Your task to perform on an android device: delete location history Image 0: 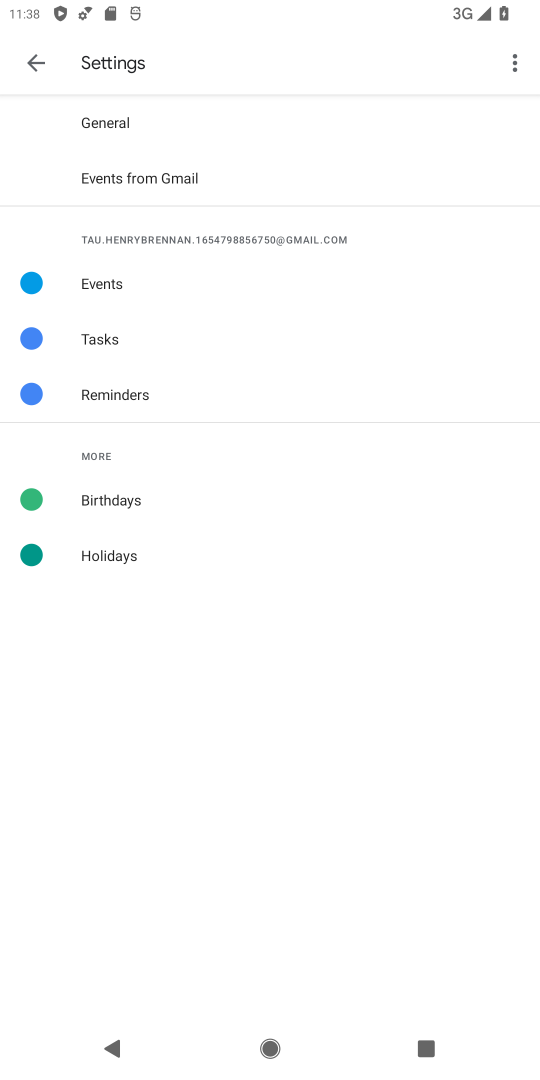
Step 0: drag from (283, 832) to (211, 240)
Your task to perform on an android device: delete location history Image 1: 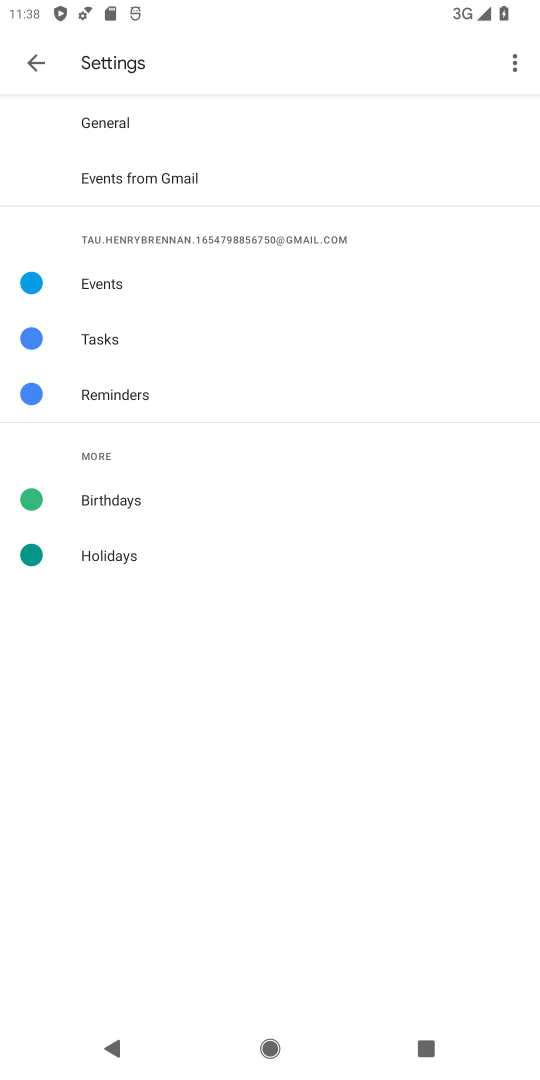
Step 1: press home button
Your task to perform on an android device: delete location history Image 2: 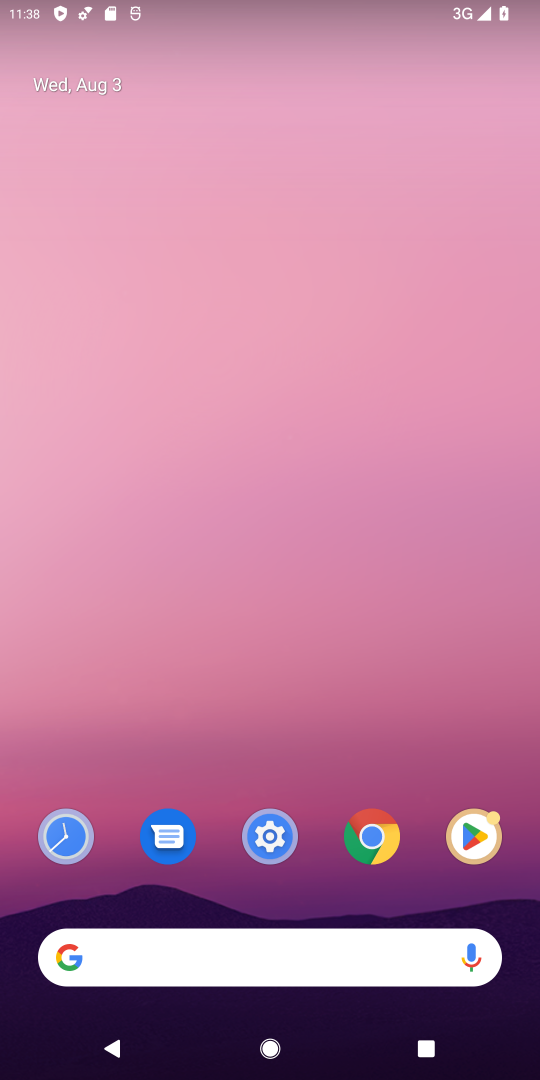
Step 2: drag from (227, 856) to (273, 18)
Your task to perform on an android device: delete location history Image 3: 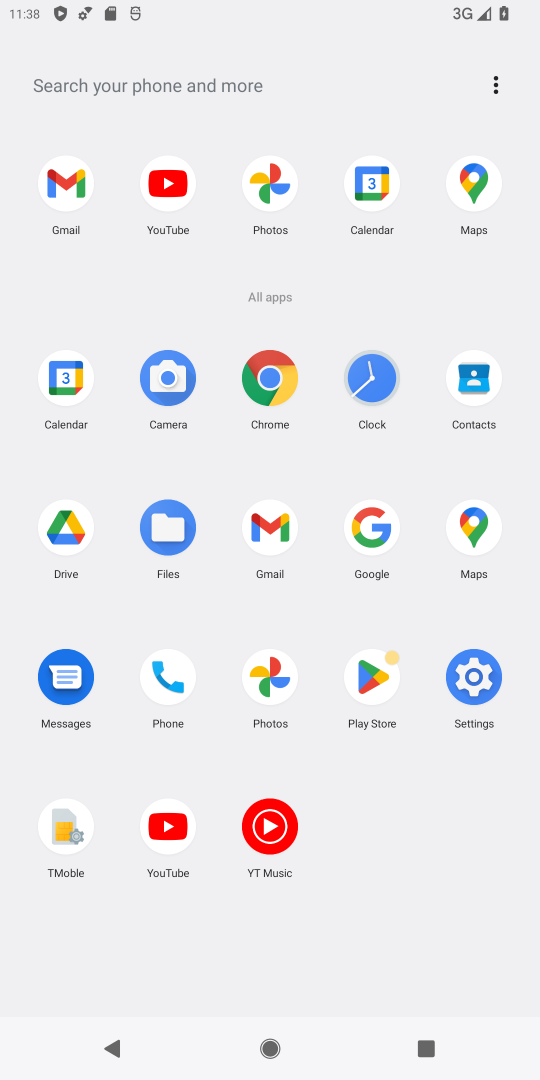
Step 3: click (475, 684)
Your task to perform on an android device: delete location history Image 4: 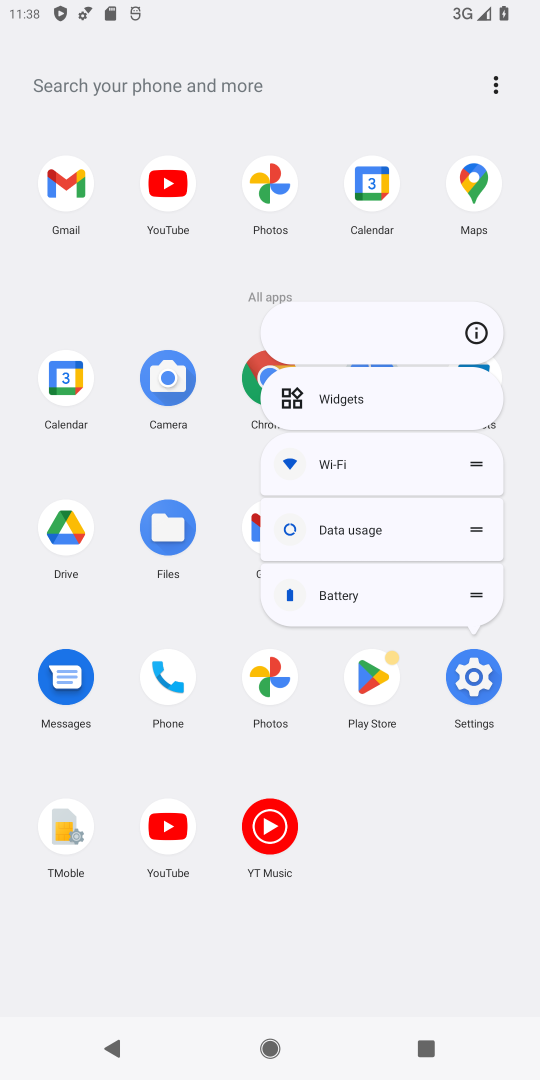
Step 4: click (475, 319)
Your task to perform on an android device: delete location history Image 5: 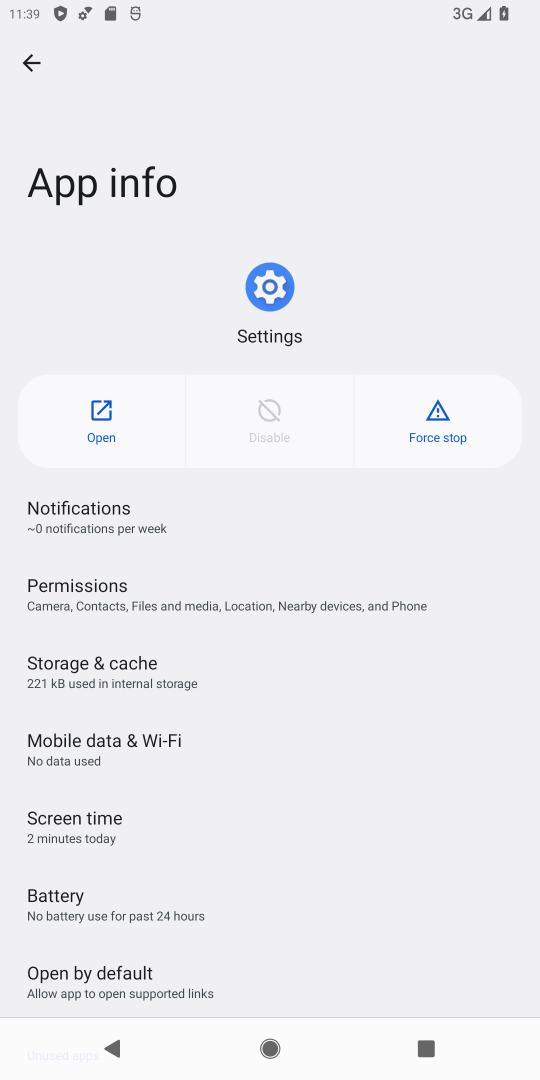
Step 5: click (84, 434)
Your task to perform on an android device: delete location history Image 6: 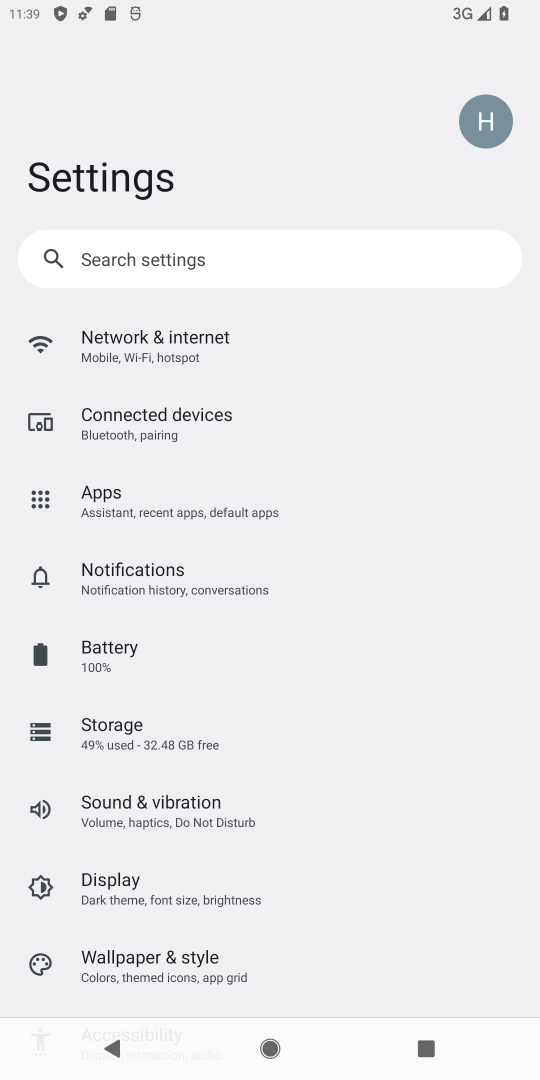
Step 6: drag from (323, 955) to (375, 679)
Your task to perform on an android device: delete location history Image 7: 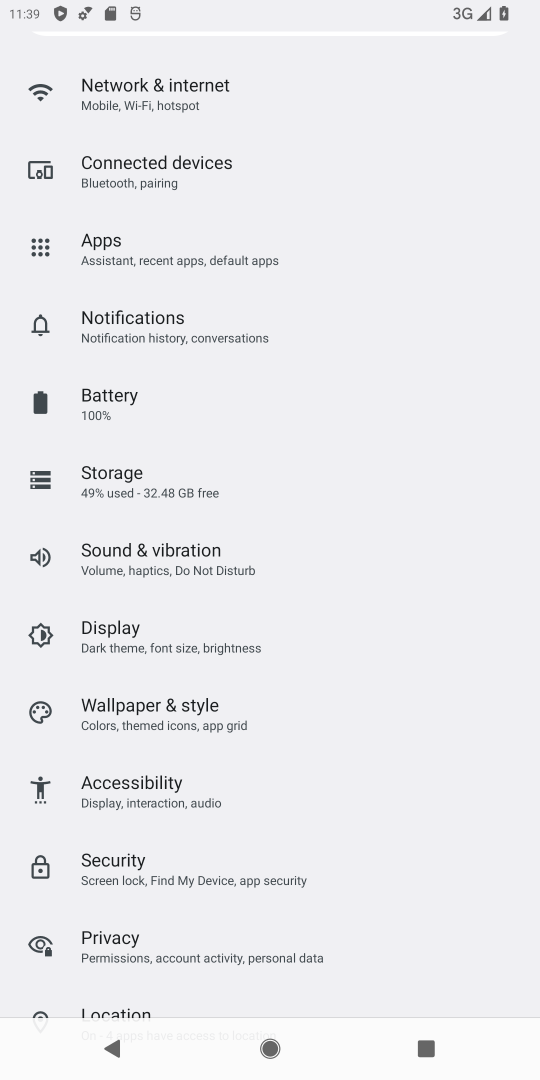
Step 7: drag from (134, 855) to (228, 427)
Your task to perform on an android device: delete location history Image 8: 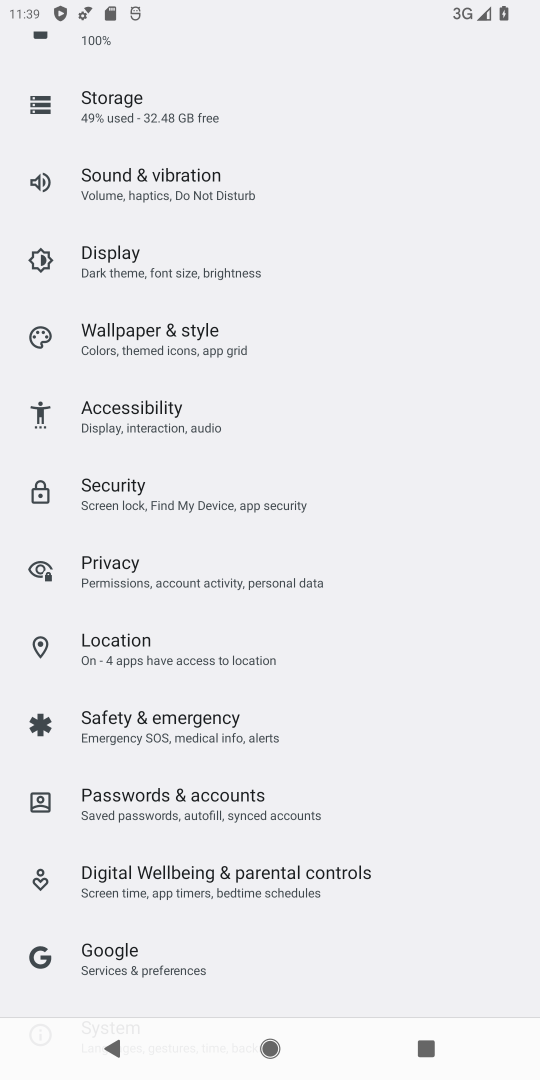
Step 8: click (191, 649)
Your task to perform on an android device: delete location history Image 9: 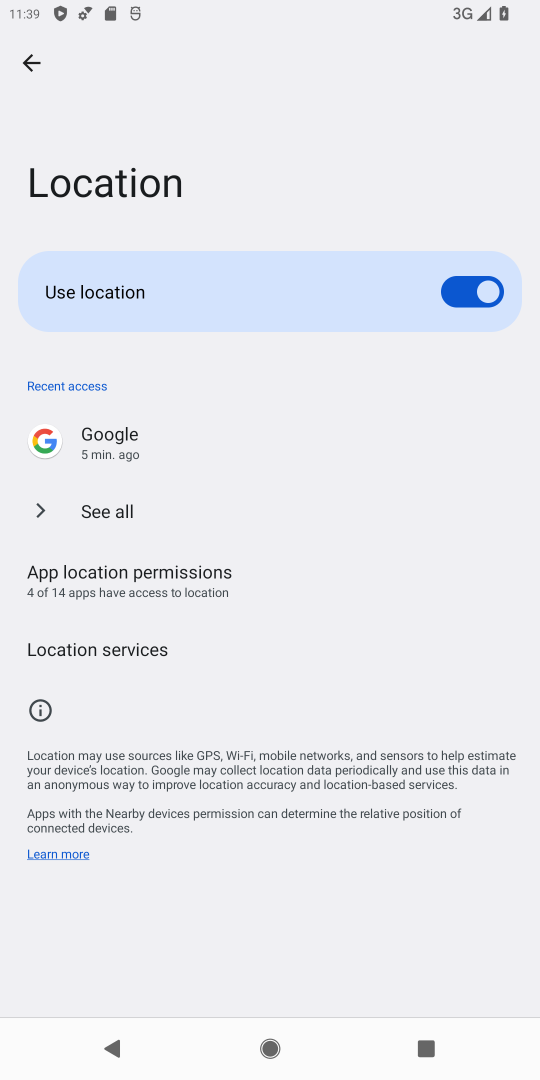
Step 9: click (107, 526)
Your task to perform on an android device: delete location history Image 10: 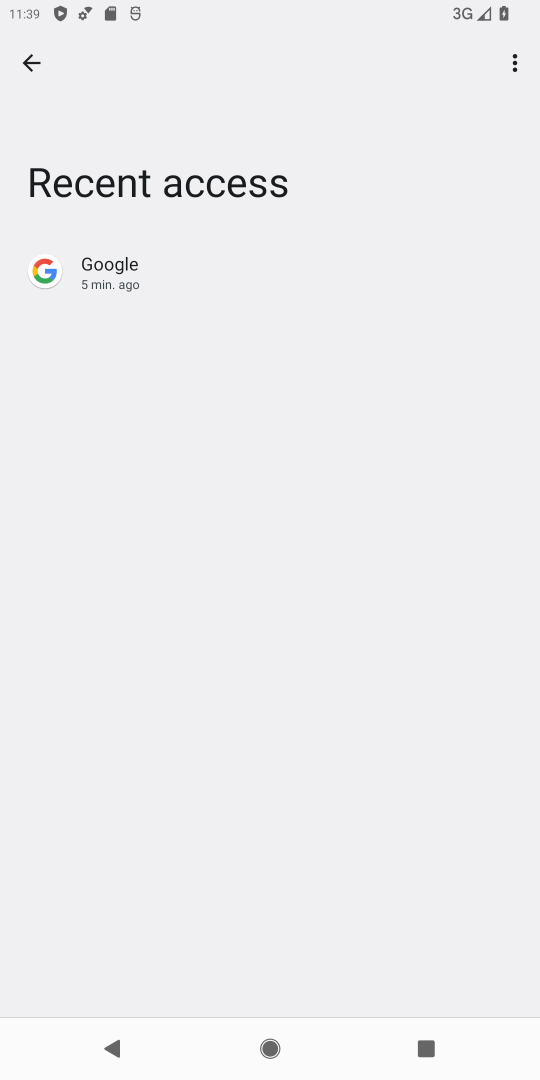
Step 10: click (34, 71)
Your task to perform on an android device: delete location history Image 11: 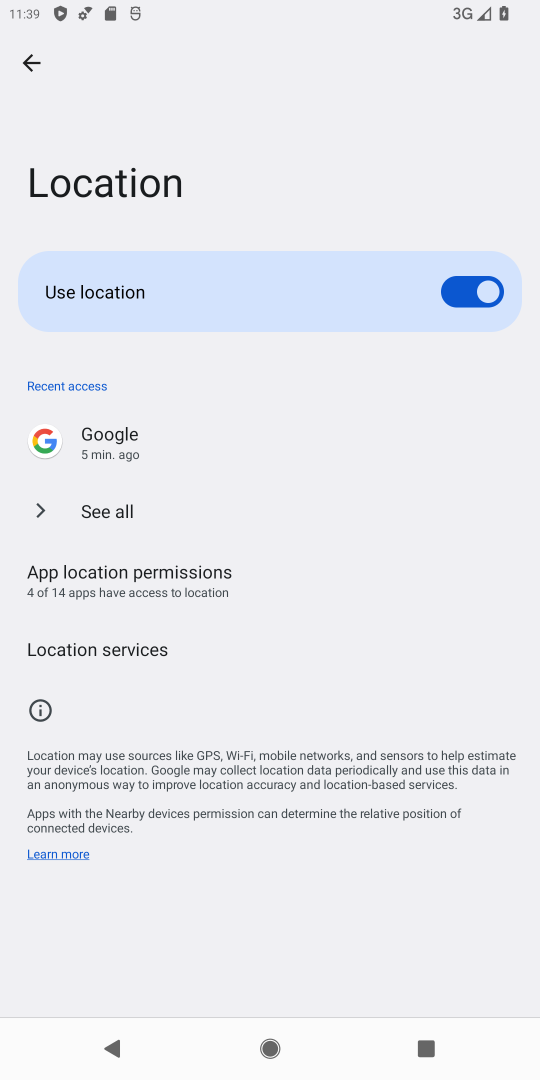
Step 11: click (107, 590)
Your task to perform on an android device: delete location history Image 12: 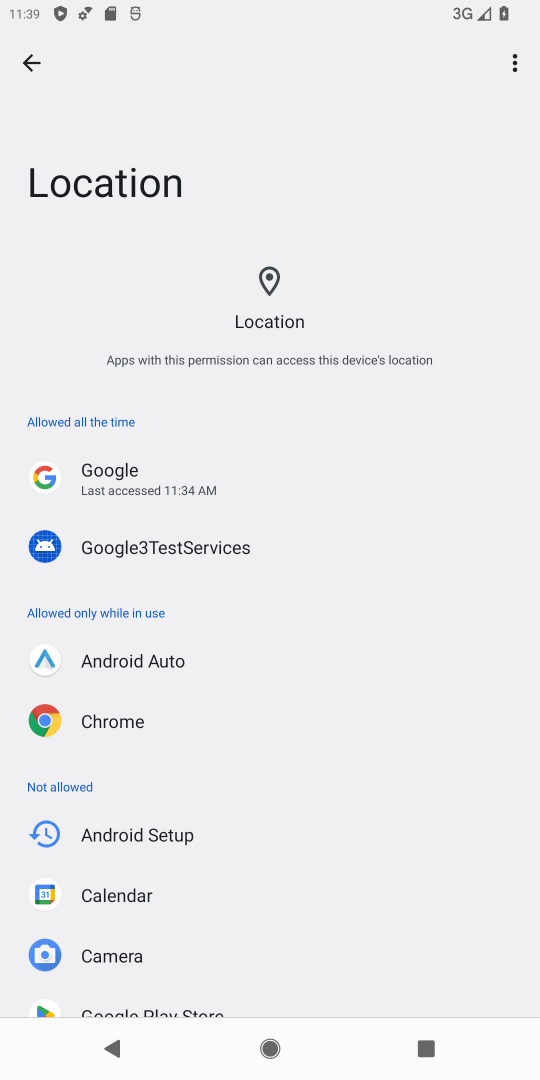
Step 12: click (19, 62)
Your task to perform on an android device: delete location history Image 13: 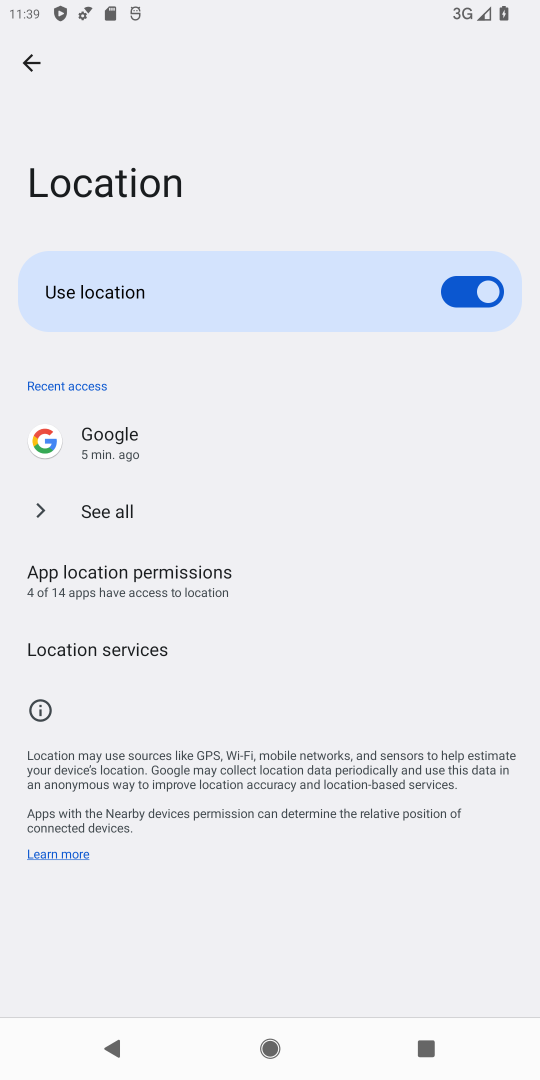
Step 13: drag from (234, 870) to (322, 392)
Your task to perform on an android device: delete location history Image 14: 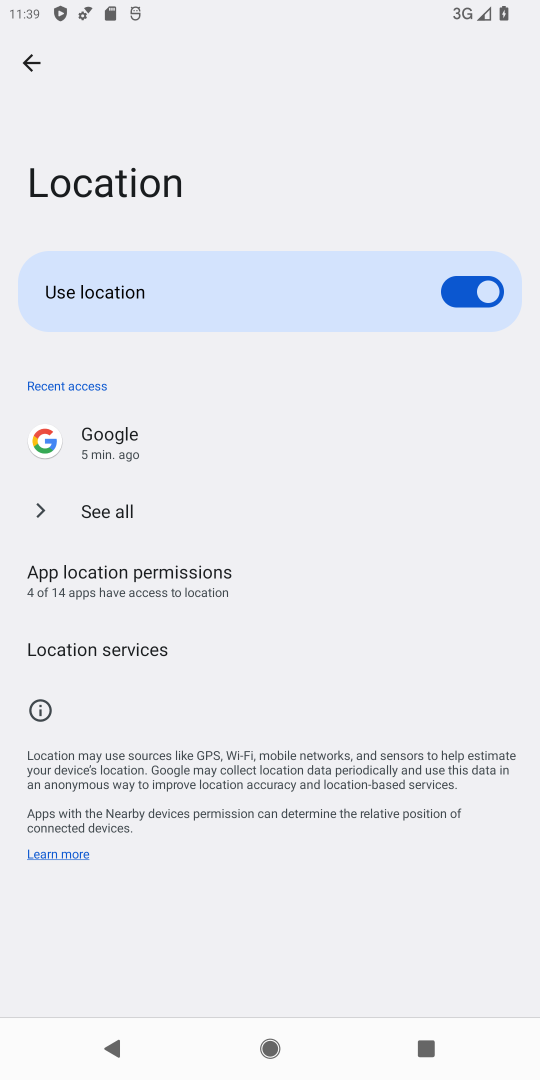
Step 14: drag from (192, 827) to (195, 529)
Your task to perform on an android device: delete location history Image 15: 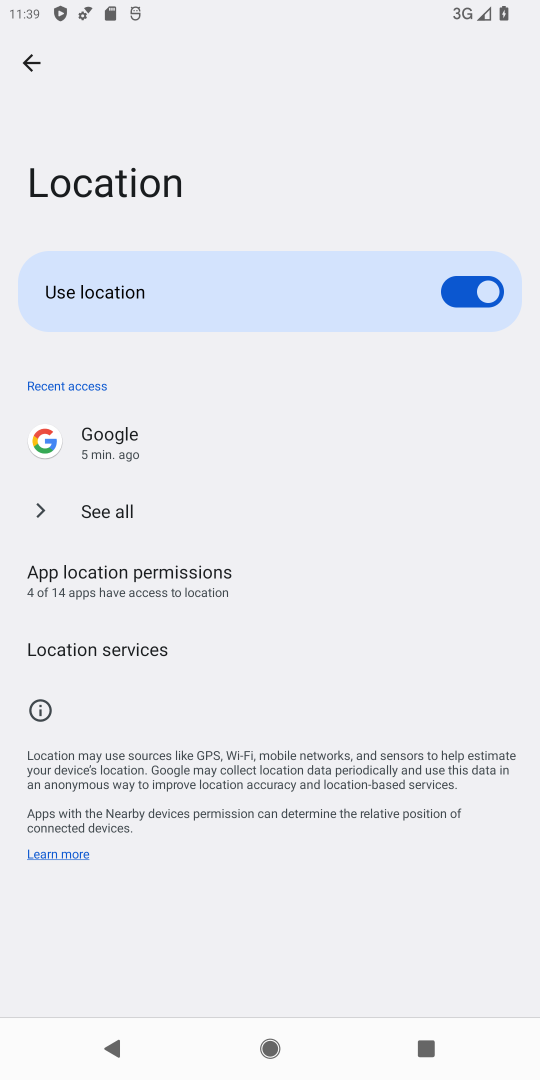
Step 15: drag from (256, 540) to (315, 952)
Your task to perform on an android device: delete location history Image 16: 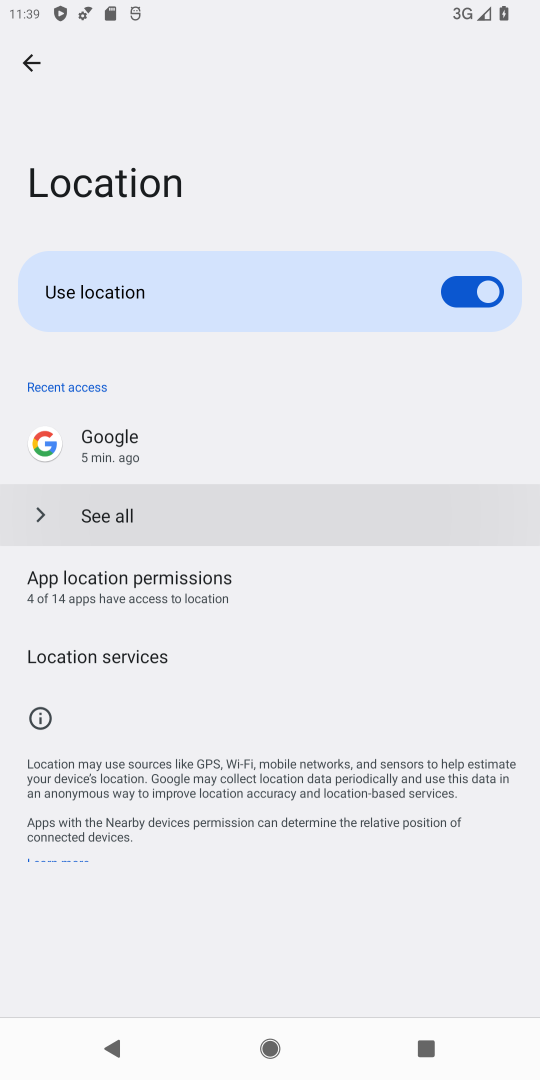
Step 16: drag from (275, 777) to (259, 553)
Your task to perform on an android device: delete location history Image 17: 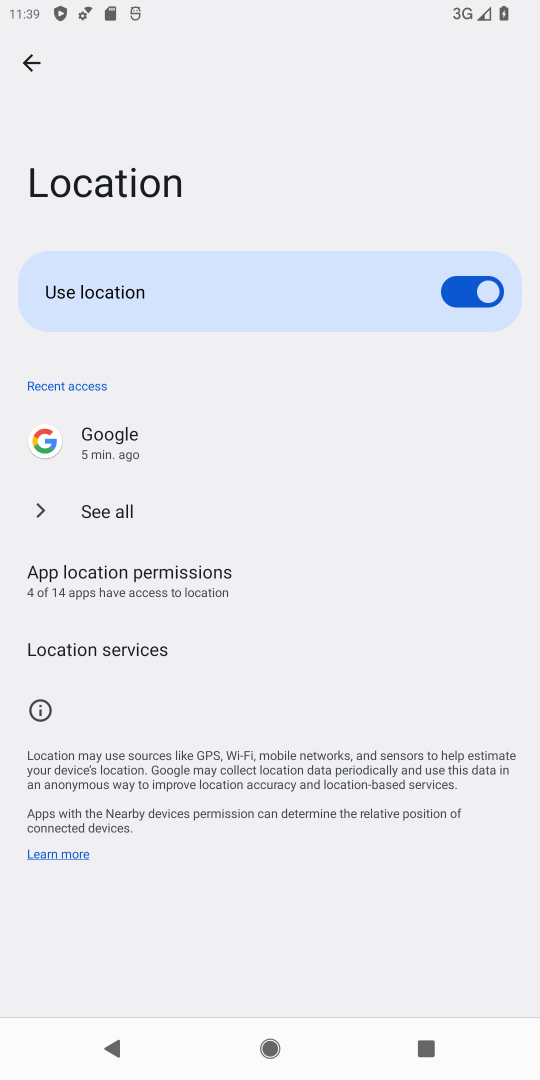
Step 17: click (68, 503)
Your task to perform on an android device: delete location history Image 18: 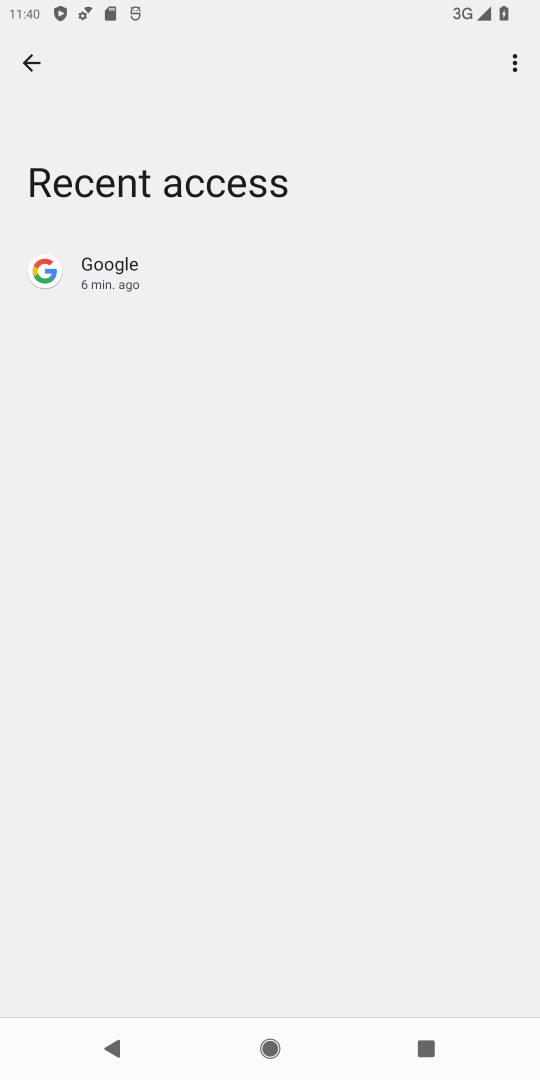
Step 18: click (20, 53)
Your task to perform on an android device: delete location history Image 19: 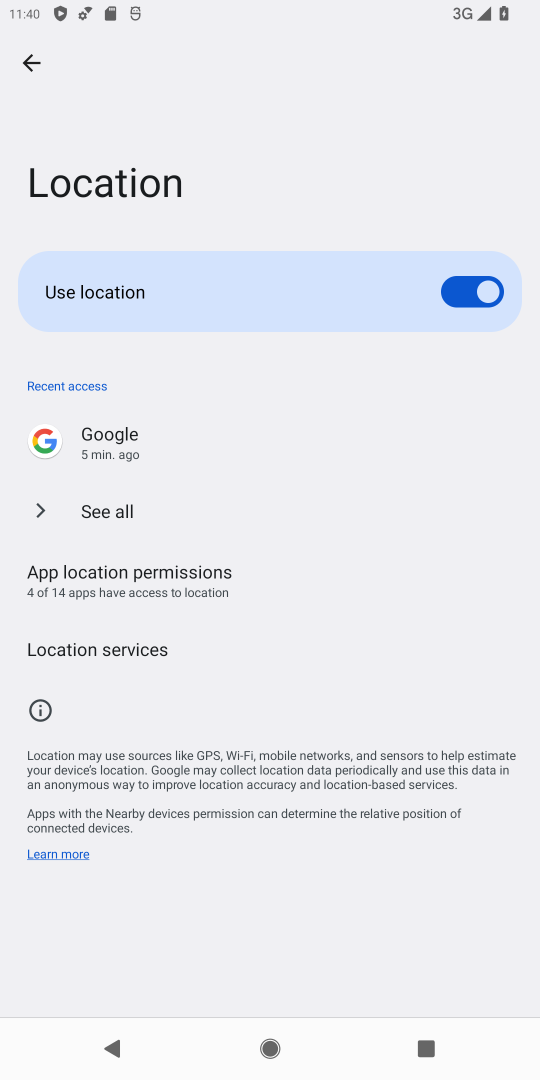
Step 19: drag from (279, 594) to (279, 221)
Your task to perform on an android device: delete location history Image 20: 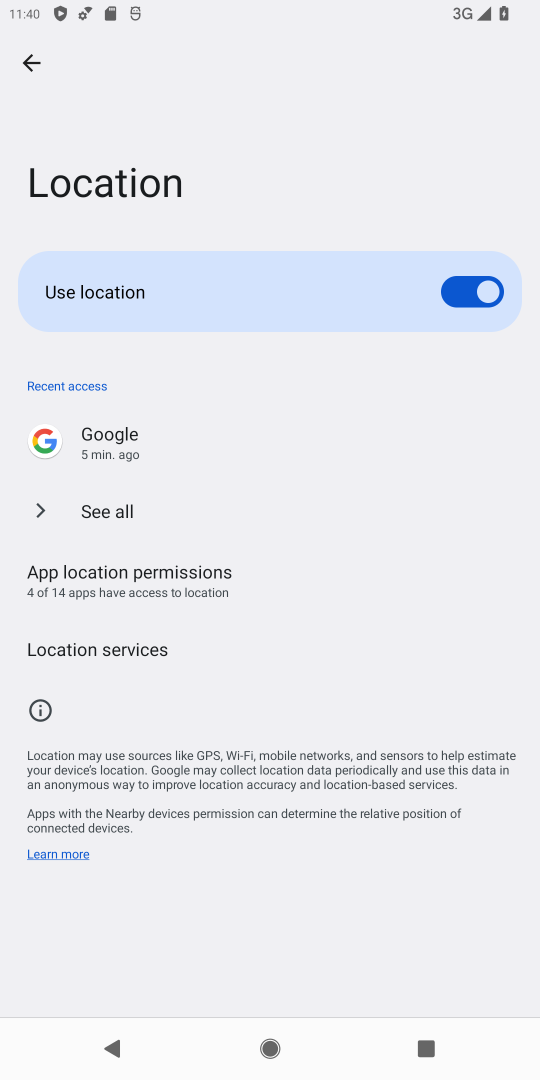
Step 20: drag from (205, 571) to (201, 171)
Your task to perform on an android device: delete location history Image 21: 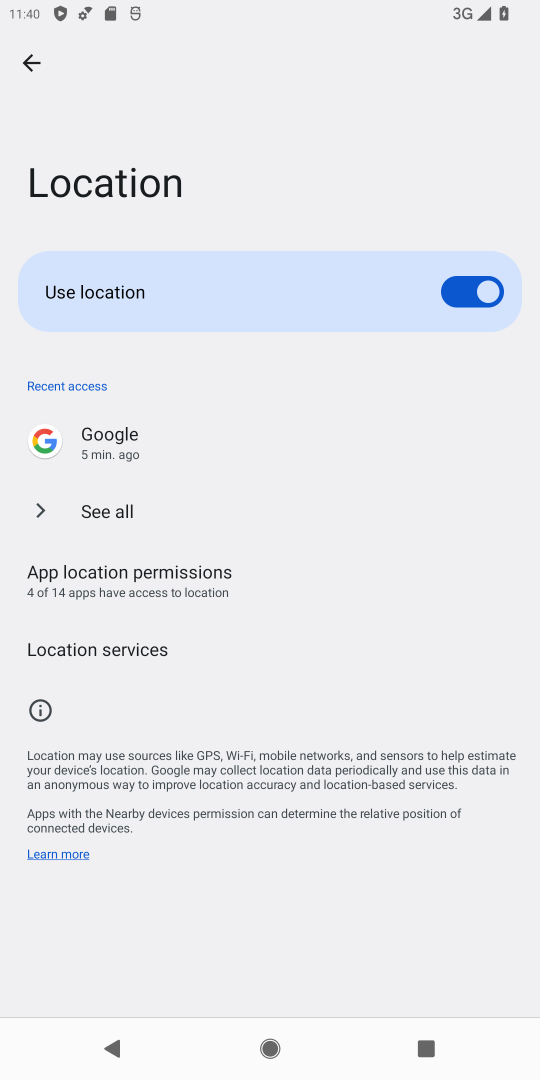
Step 21: drag from (269, 680) to (315, 243)
Your task to perform on an android device: delete location history Image 22: 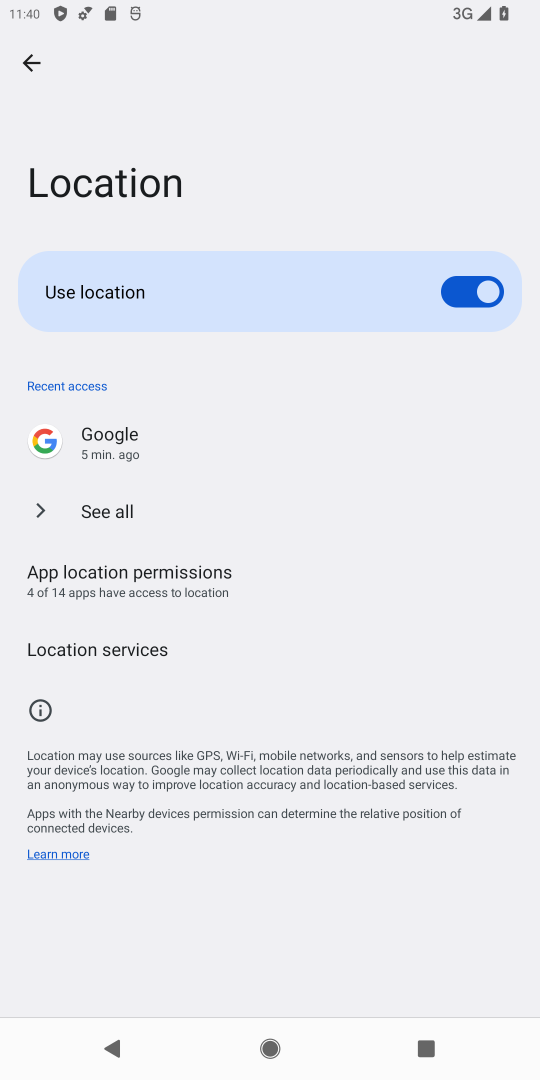
Step 22: drag from (259, 147) to (245, 655)
Your task to perform on an android device: delete location history Image 23: 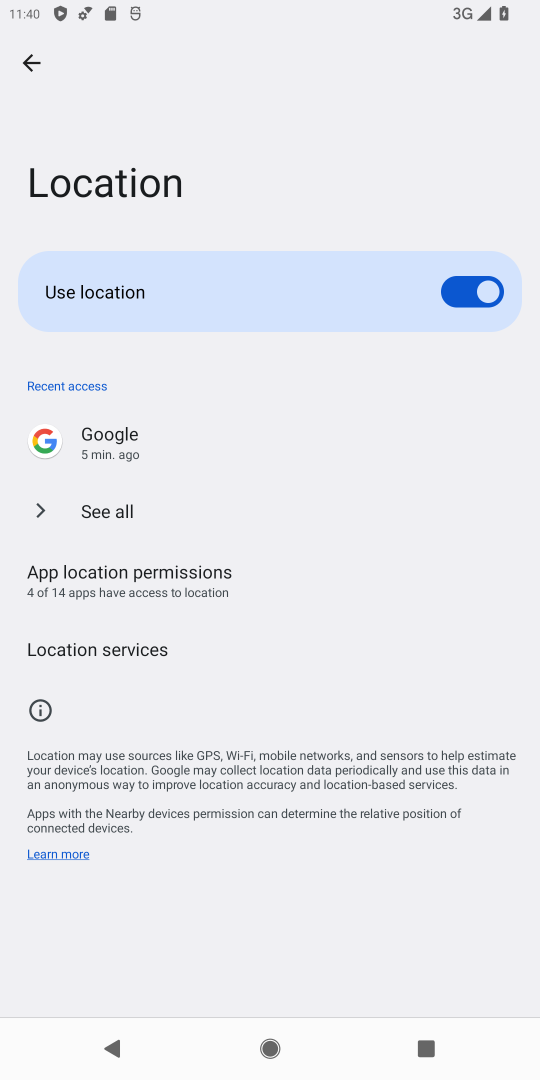
Step 23: drag from (225, 195) to (174, 564)
Your task to perform on an android device: delete location history Image 24: 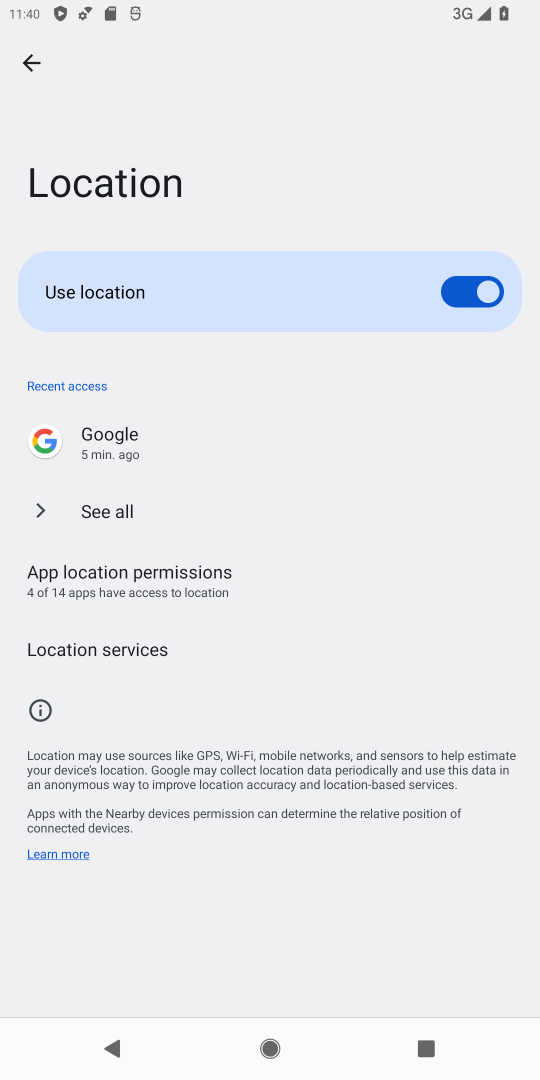
Step 24: drag from (311, 147) to (305, 778)
Your task to perform on an android device: delete location history Image 25: 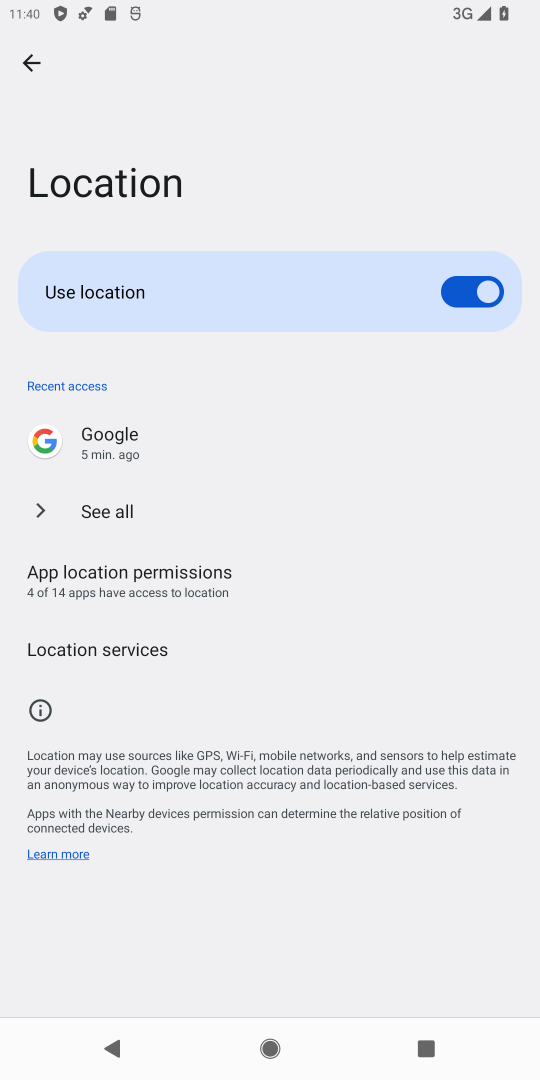
Step 25: drag from (245, 168) to (248, 915)
Your task to perform on an android device: delete location history Image 26: 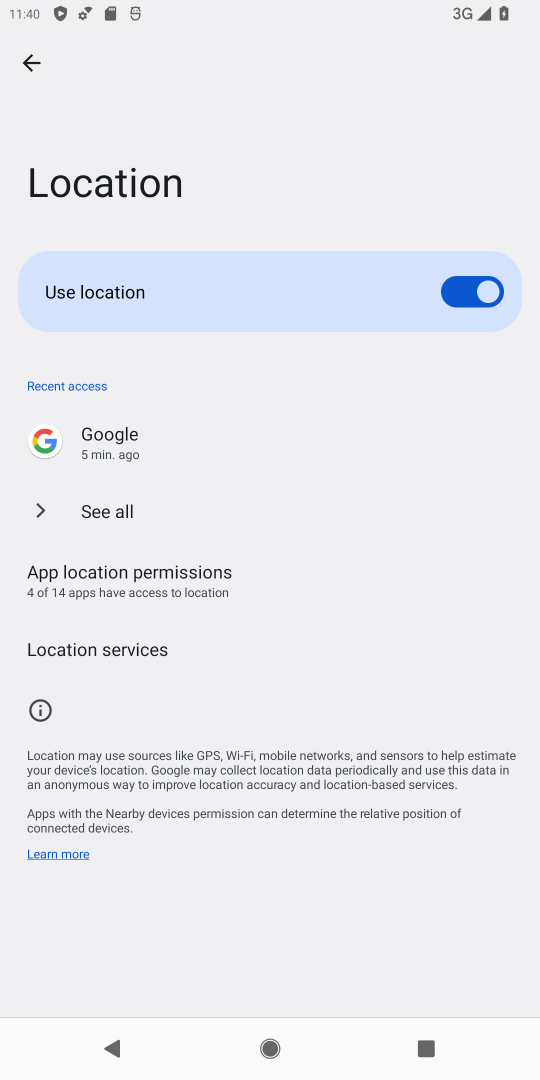
Step 26: drag from (273, 856) to (277, 647)
Your task to perform on an android device: delete location history Image 27: 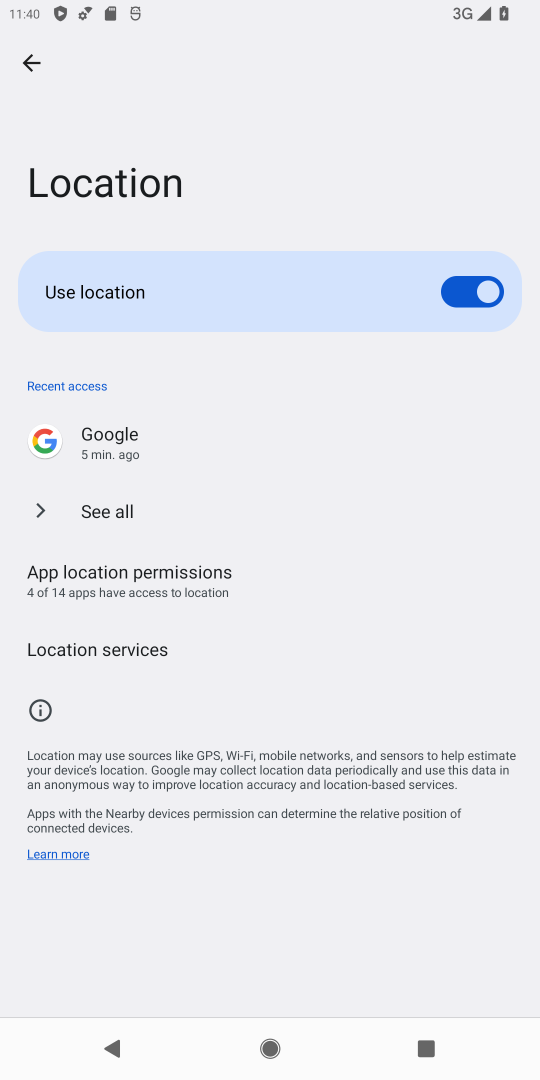
Step 27: click (176, 563)
Your task to perform on an android device: delete location history Image 28: 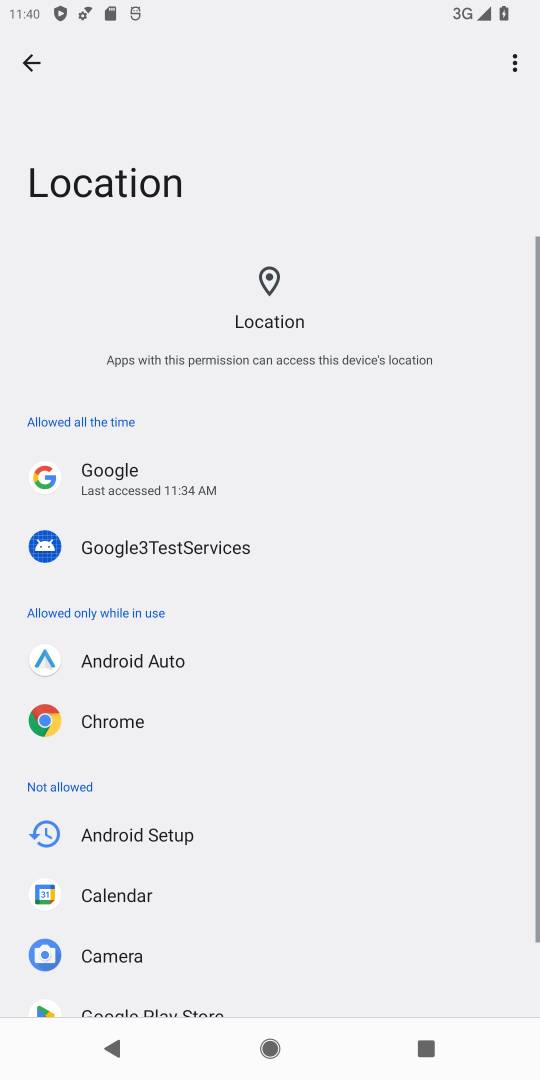
Step 28: drag from (178, 727) to (218, 189)
Your task to perform on an android device: delete location history Image 29: 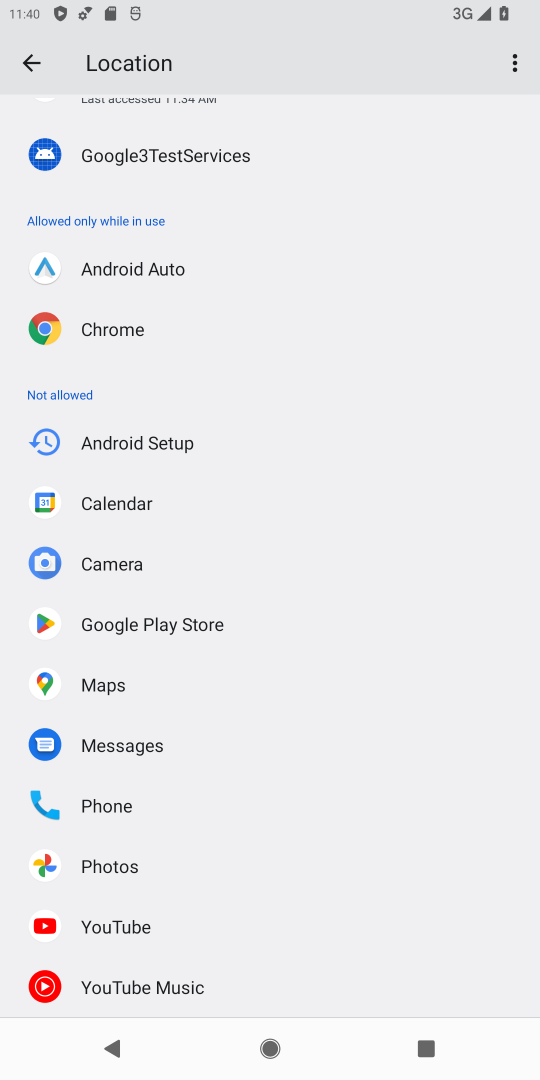
Step 29: drag from (276, 782) to (246, 296)
Your task to perform on an android device: delete location history Image 30: 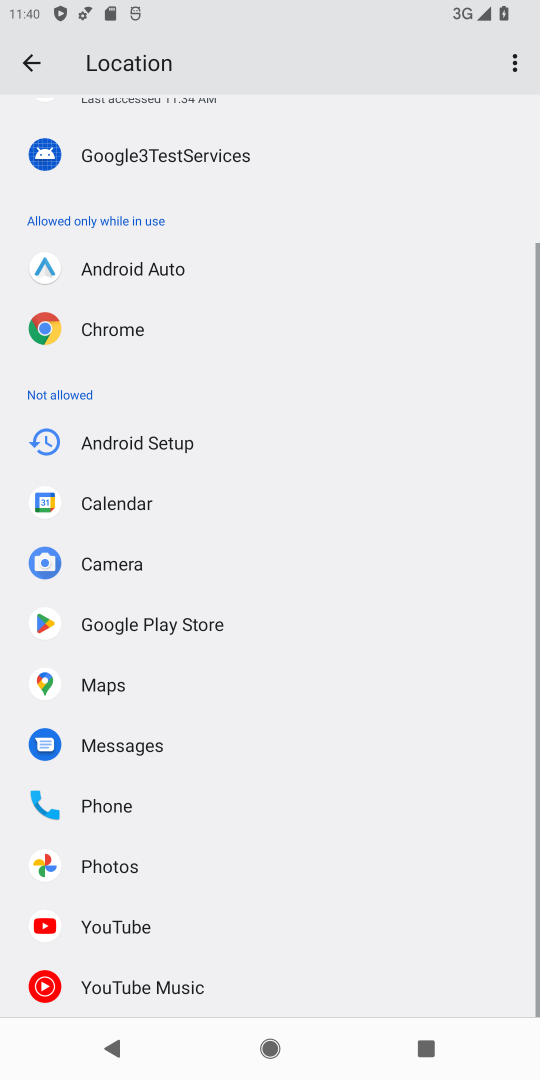
Step 30: drag from (290, 728) to (304, 338)
Your task to perform on an android device: delete location history Image 31: 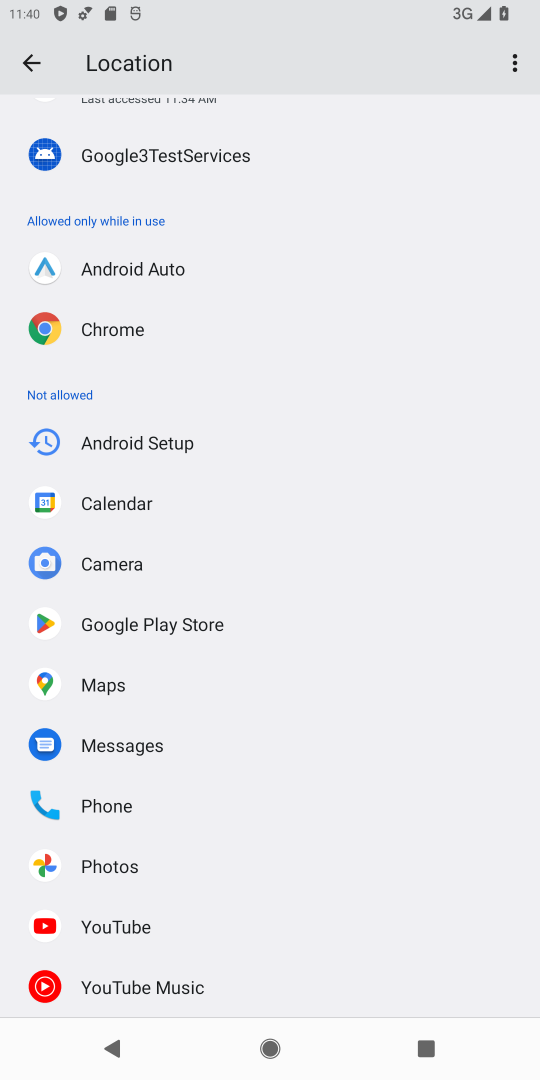
Step 31: drag from (283, 698) to (283, 362)
Your task to perform on an android device: delete location history Image 32: 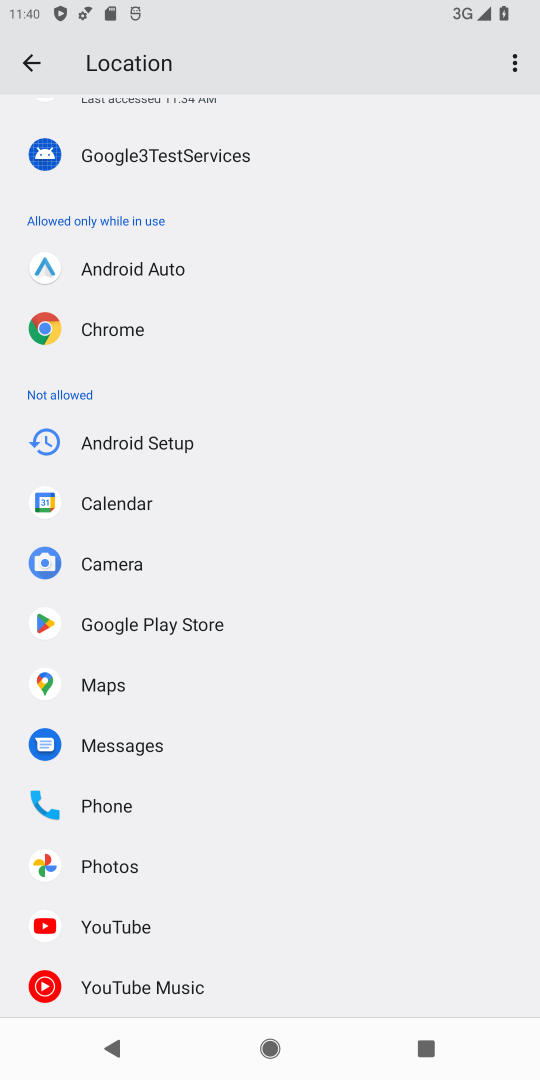
Step 32: click (23, 63)
Your task to perform on an android device: delete location history Image 33: 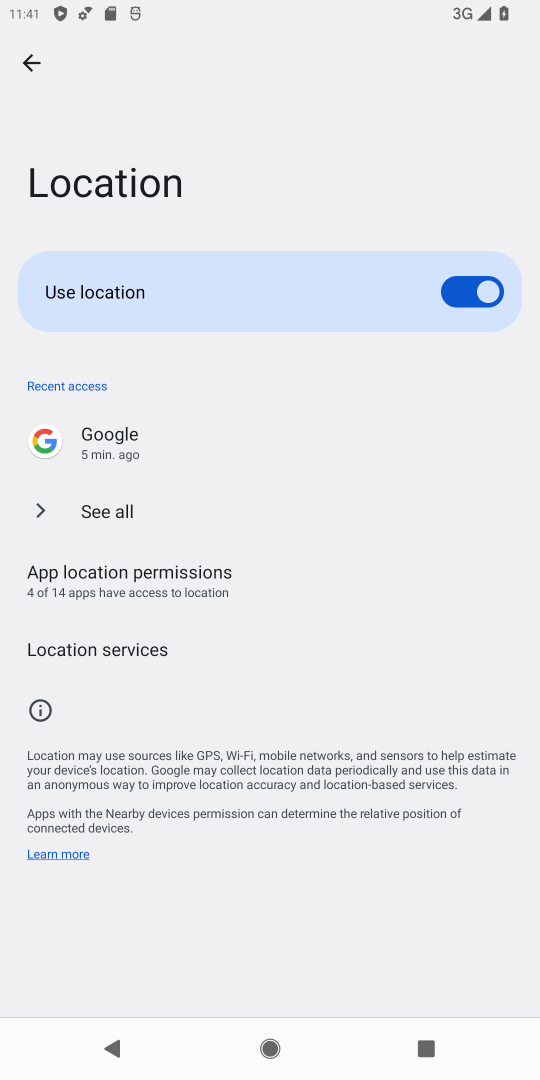
Step 33: task complete